Your task to perform on an android device: turn on priority inbox in the gmail app Image 0: 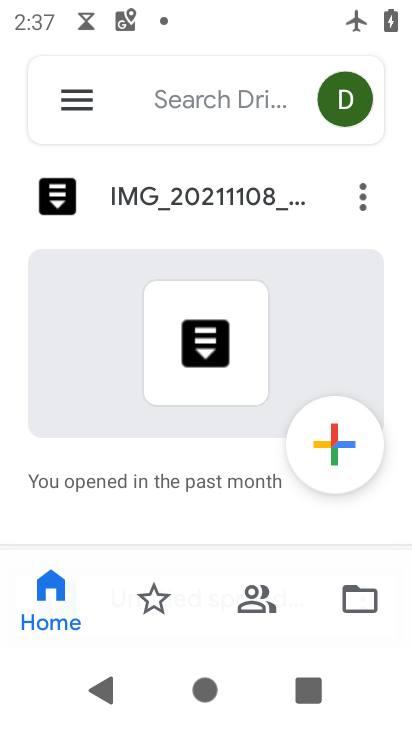
Step 0: press home button
Your task to perform on an android device: turn on priority inbox in the gmail app Image 1: 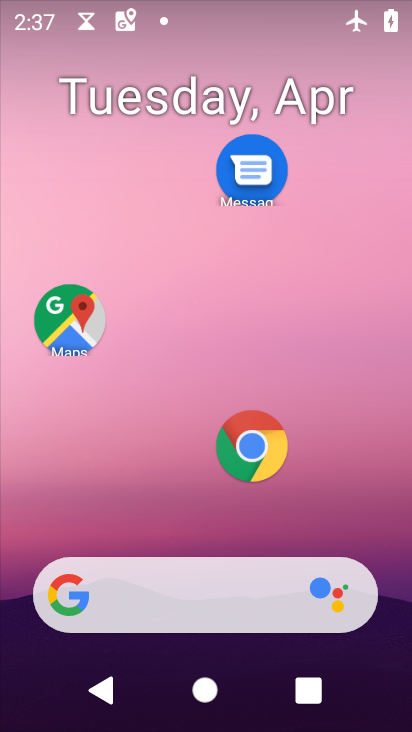
Step 1: drag from (177, 448) to (202, 47)
Your task to perform on an android device: turn on priority inbox in the gmail app Image 2: 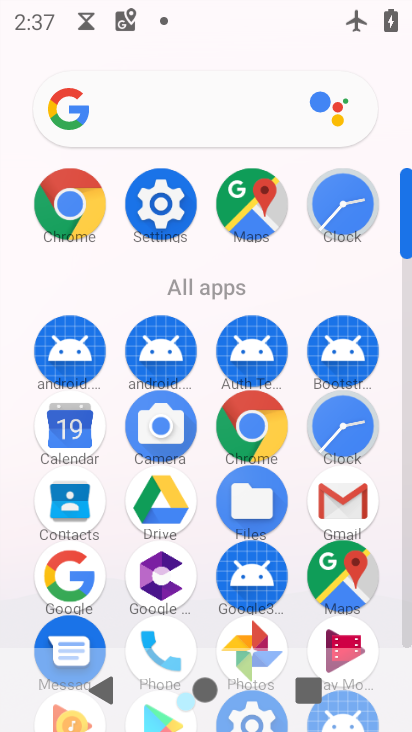
Step 2: click (328, 496)
Your task to perform on an android device: turn on priority inbox in the gmail app Image 3: 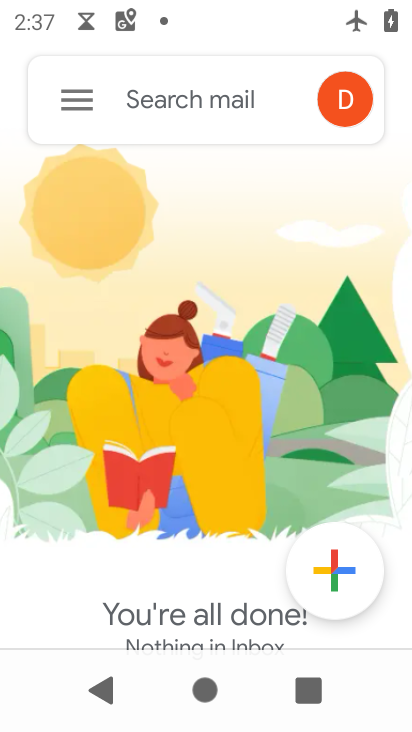
Step 3: click (68, 93)
Your task to perform on an android device: turn on priority inbox in the gmail app Image 4: 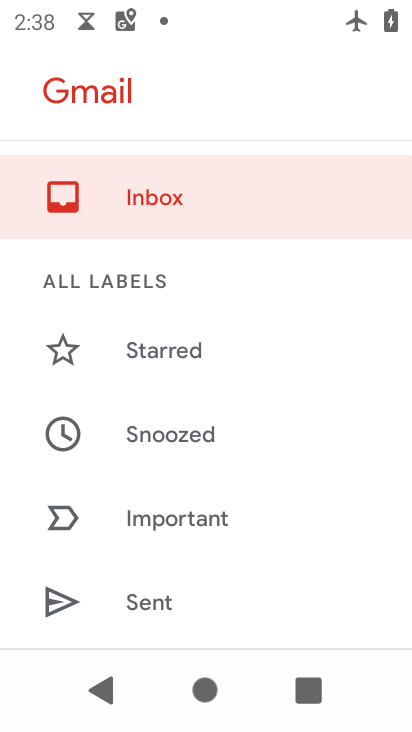
Step 4: drag from (175, 344) to (214, 177)
Your task to perform on an android device: turn on priority inbox in the gmail app Image 5: 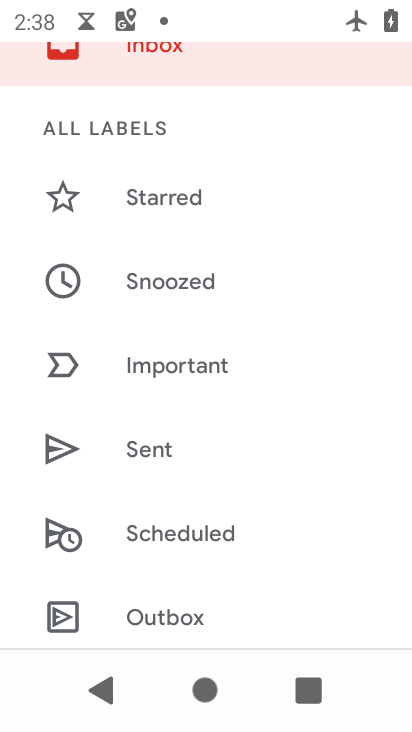
Step 5: drag from (227, 580) to (216, 56)
Your task to perform on an android device: turn on priority inbox in the gmail app Image 6: 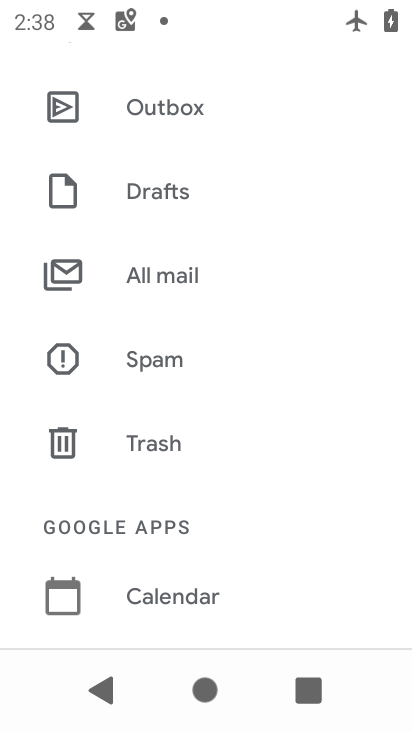
Step 6: drag from (187, 501) to (194, 90)
Your task to perform on an android device: turn on priority inbox in the gmail app Image 7: 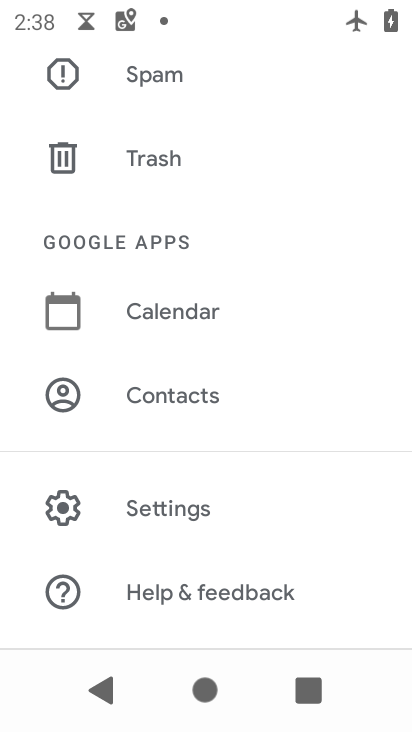
Step 7: click (179, 505)
Your task to perform on an android device: turn on priority inbox in the gmail app Image 8: 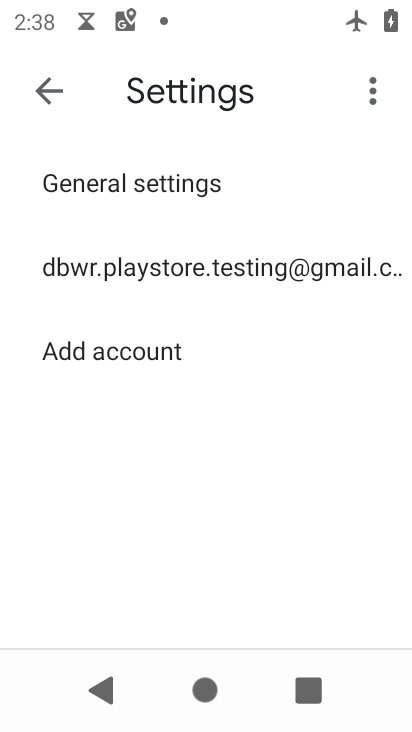
Step 8: click (121, 266)
Your task to perform on an android device: turn on priority inbox in the gmail app Image 9: 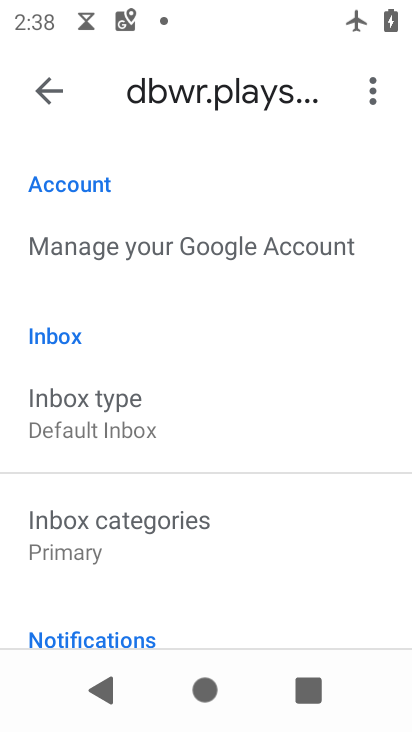
Step 9: click (125, 395)
Your task to perform on an android device: turn on priority inbox in the gmail app Image 10: 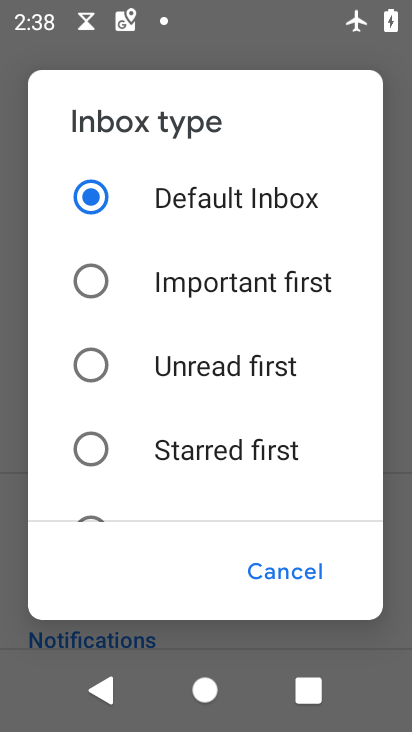
Step 10: drag from (184, 405) to (198, 186)
Your task to perform on an android device: turn on priority inbox in the gmail app Image 11: 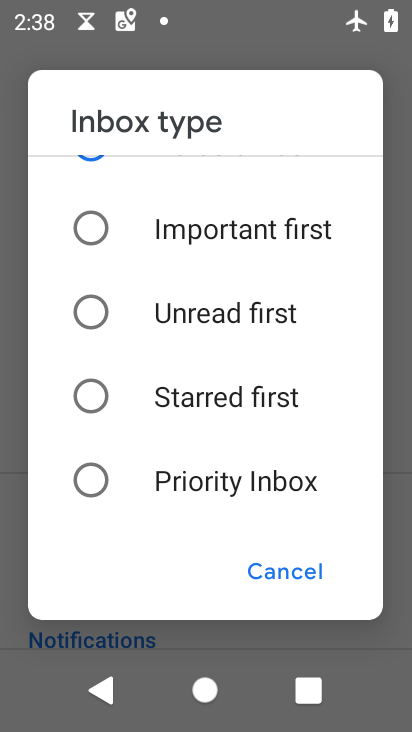
Step 11: click (98, 487)
Your task to perform on an android device: turn on priority inbox in the gmail app Image 12: 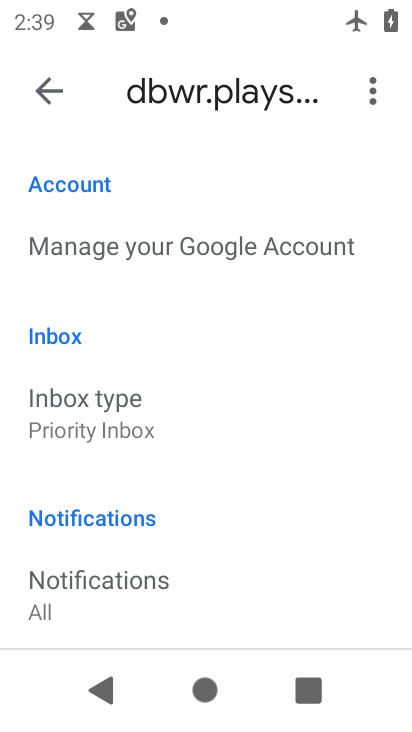
Step 12: task complete